Your task to perform on an android device: Open Google Chrome and click the shortcut for Amazon.com Image 0: 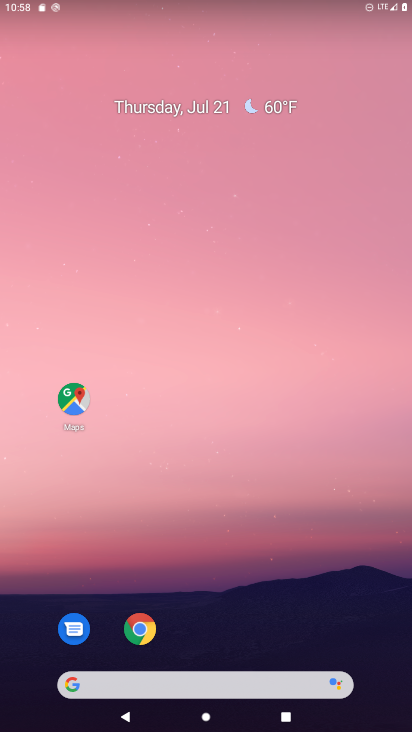
Step 0: press home button
Your task to perform on an android device: Open Google Chrome and click the shortcut for Amazon.com Image 1: 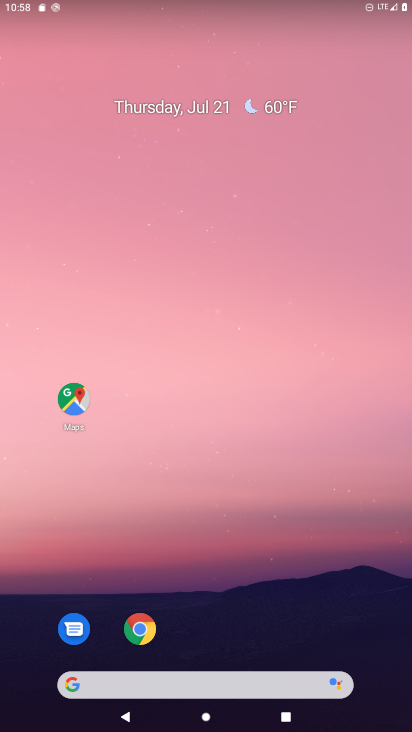
Step 1: click (145, 631)
Your task to perform on an android device: Open Google Chrome and click the shortcut for Amazon.com Image 2: 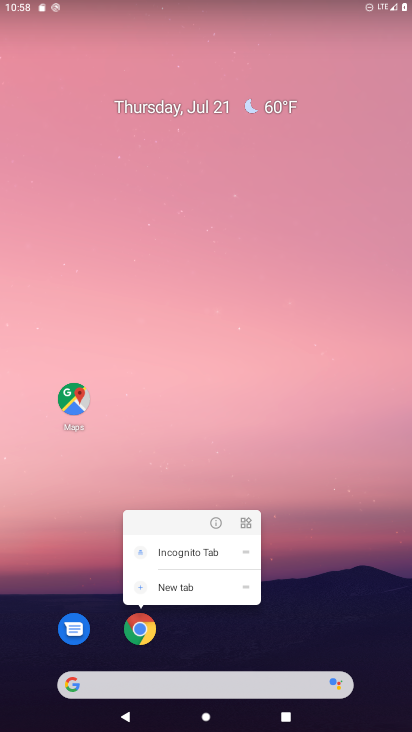
Step 2: click (140, 632)
Your task to perform on an android device: Open Google Chrome and click the shortcut for Amazon.com Image 3: 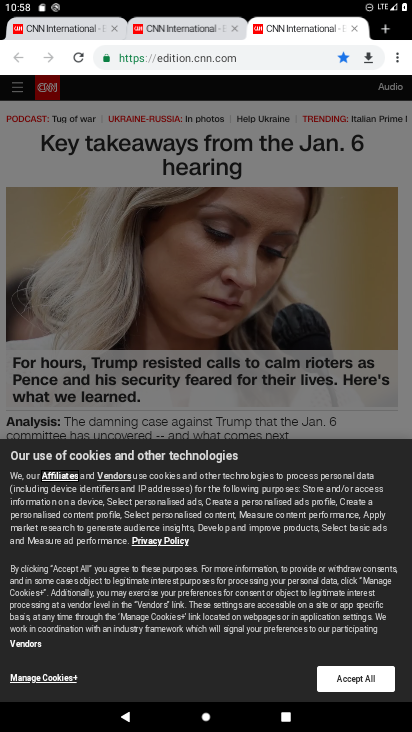
Step 3: click (382, 28)
Your task to perform on an android device: Open Google Chrome and click the shortcut for Amazon.com Image 4: 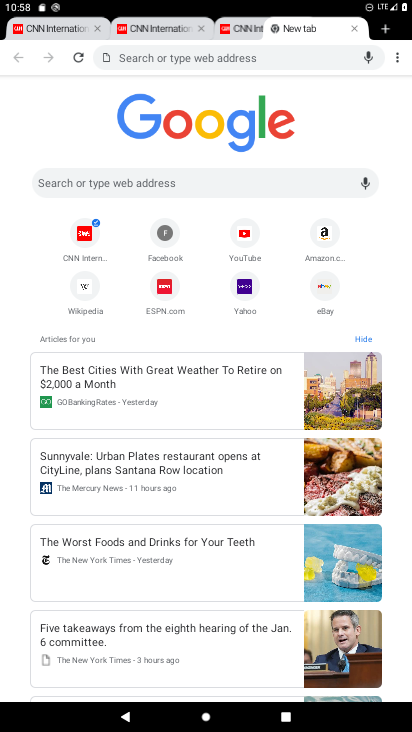
Step 4: click (311, 243)
Your task to perform on an android device: Open Google Chrome and click the shortcut for Amazon.com Image 5: 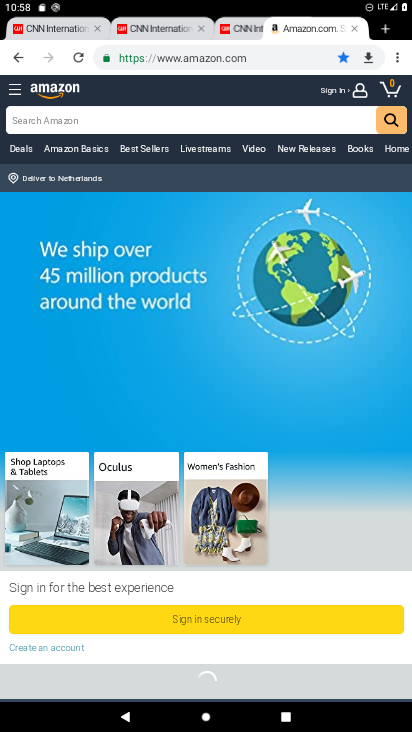
Step 5: task complete